Your task to perform on an android device: Open privacy settings Image 0: 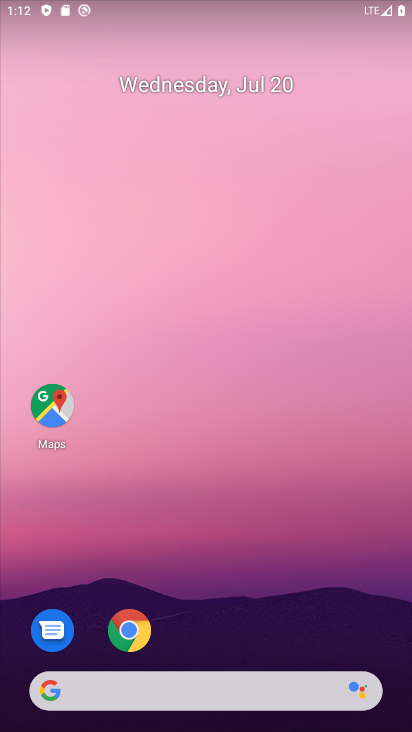
Step 0: drag from (245, 497) to (213, 132)
Your task to perform on an android device: Open privacy settings Image 1: 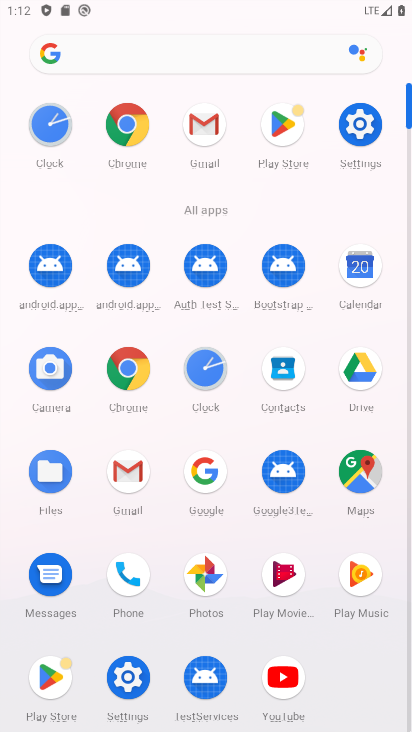
Step 1: click (359, 119)
Your task to perform on an android device: Open privacy settings Image 2: 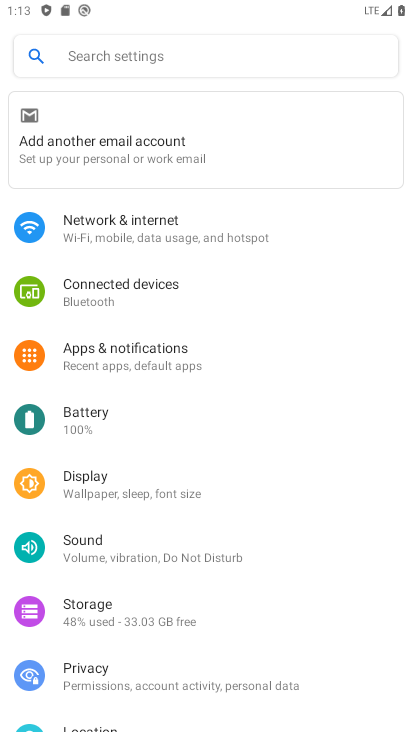
Step 2: drag from (191, 298) to (214, 192)
Your task to perform on an android device: Open privacy settings Image 3: 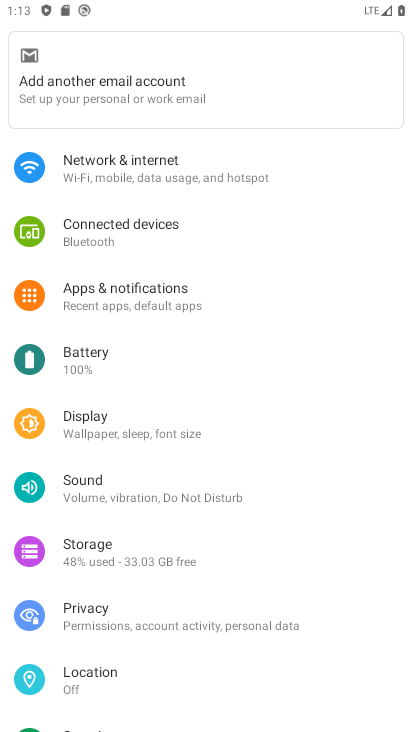
Step 3: click (126, 618)
Your task to perform on an android device: Open privacy settings Image 4: 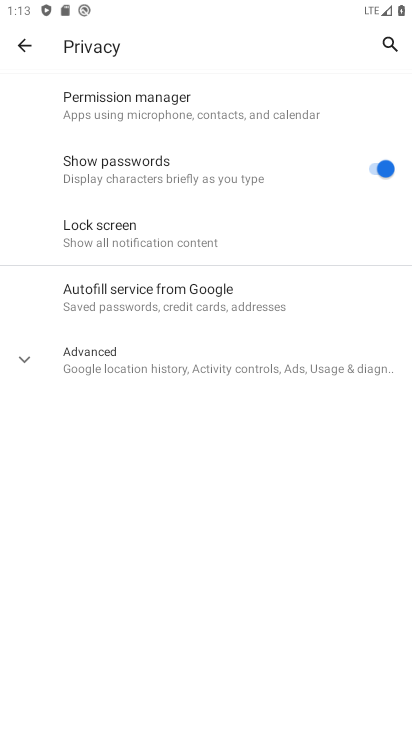
Step 4: task complete